Your task to perform on an android device: Search for sushi restaurants on Maps Image 0: 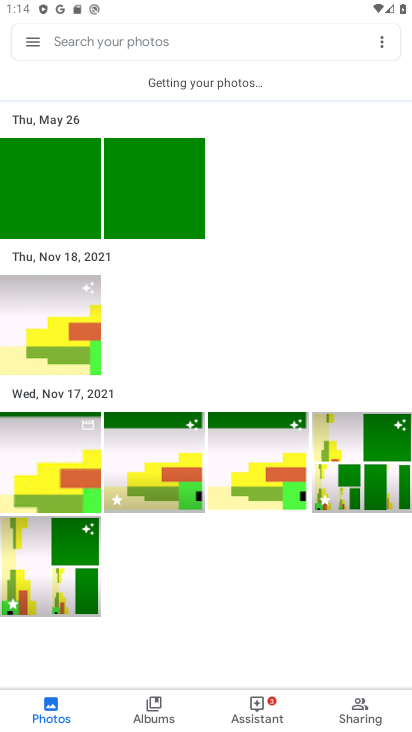
Step 0: press home button
Your task to perform on an android device: Search for sushi restaurants on Maps Image 1: 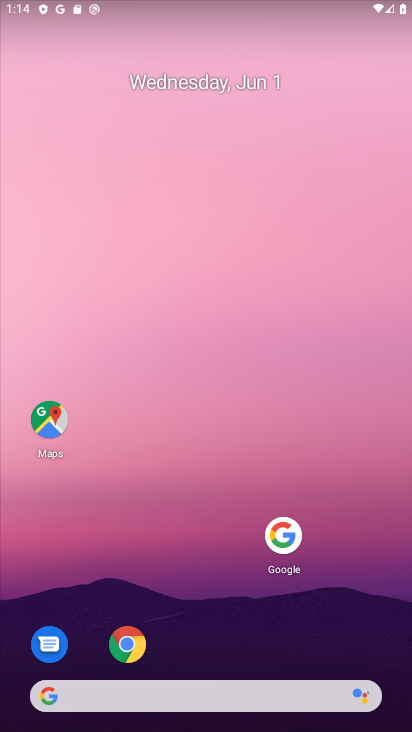
Step 1: click (51, 420)
Your task to perform on an android device: Search for sushi restaurants on Maps Image 2: 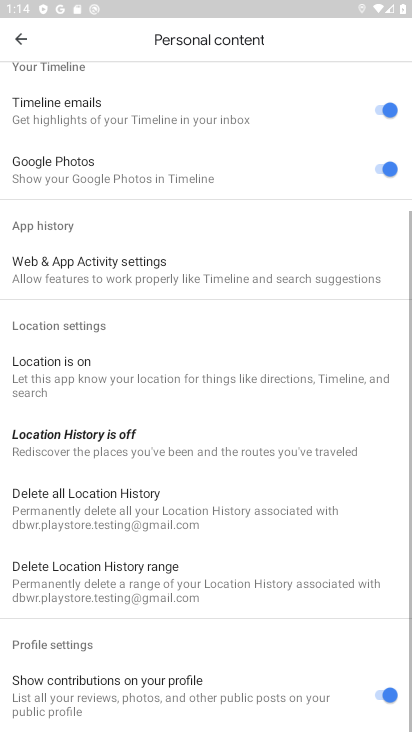
Step 2: click (25, 35)
Your task to perform on an android device: Search for sushi restaurants on Maps Image 3: 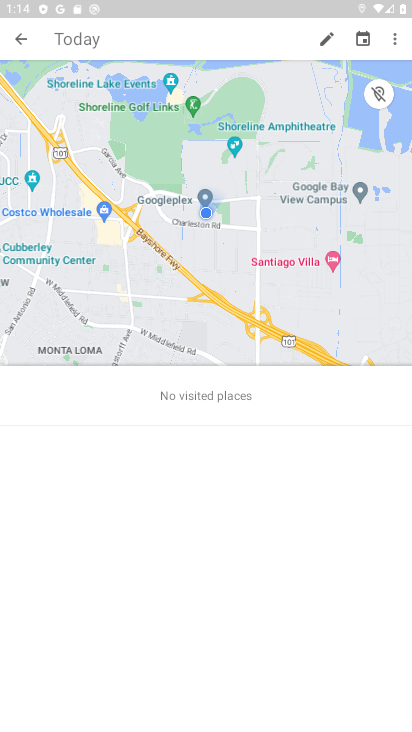
Step 3: click (3, 41)
Your task to perform on an android device: Search for sushi restaurants on Maps Image 4: 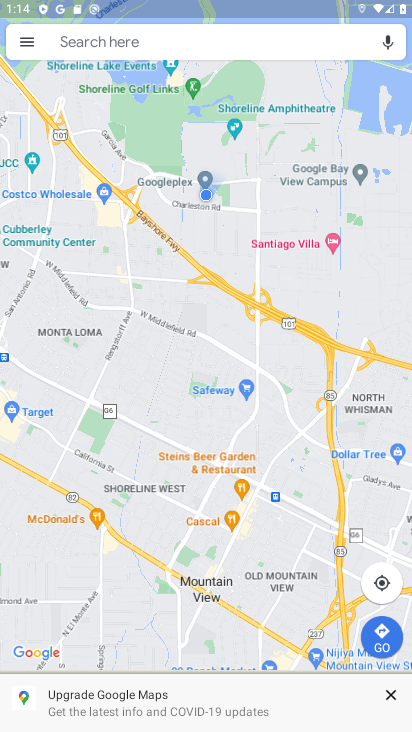
Step 4: click (152, 37)
Your task to perform on an android device: Search for sushi restaurants on Maps Image 5: 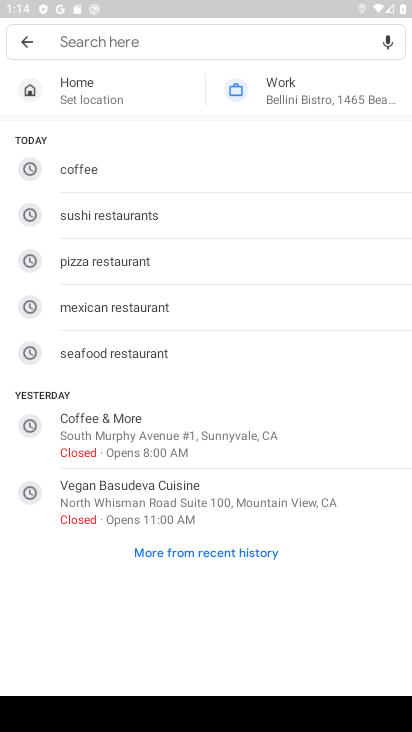
Step 5: click (106, 217)
Your task to perform on an android device: Search for sushi restaurants on Maps Image 6: 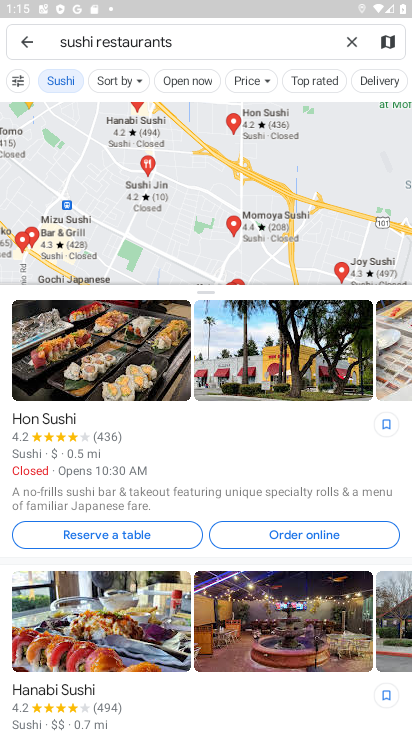
Step 6: task complete